Your task to perform on an android device: change notifications settings Image 0: 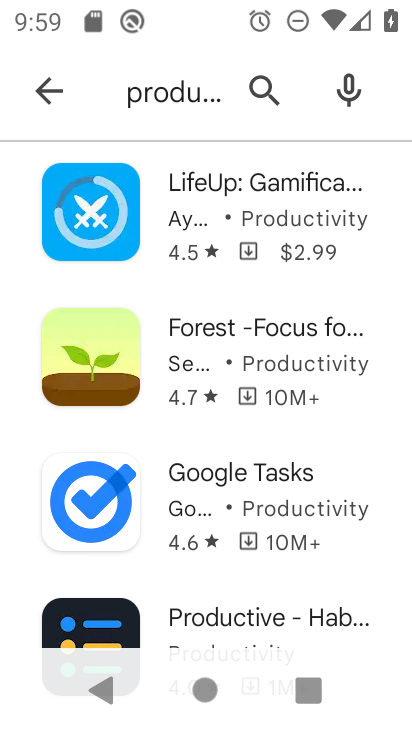
Step 0: press home button
Your task to perform on an android device: change notifications settings Image 1: 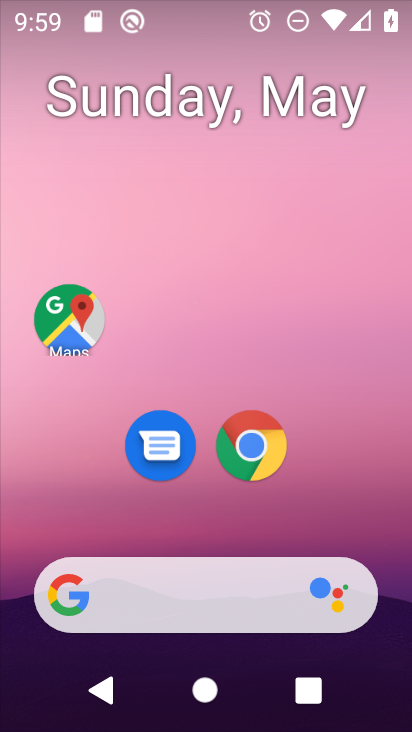
Step 1: drag from (268, 375) to (268, 200)
Your task to perform on an android device: change notifications settings Image 2: 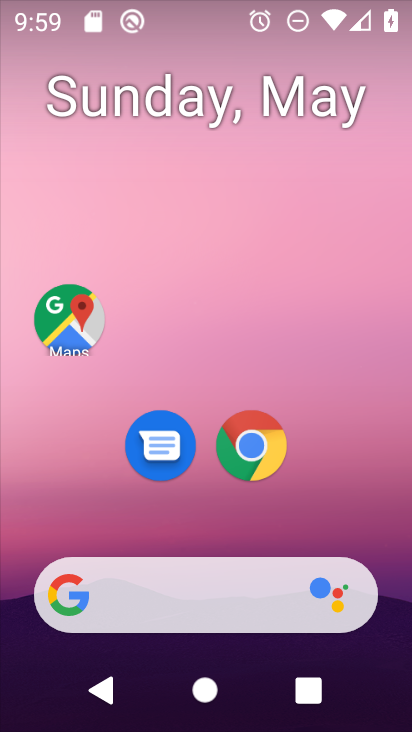
Step 2: drag from (226, 550) to (268, 147)
Your task to perform on an android device: change notifications settings Image 3: 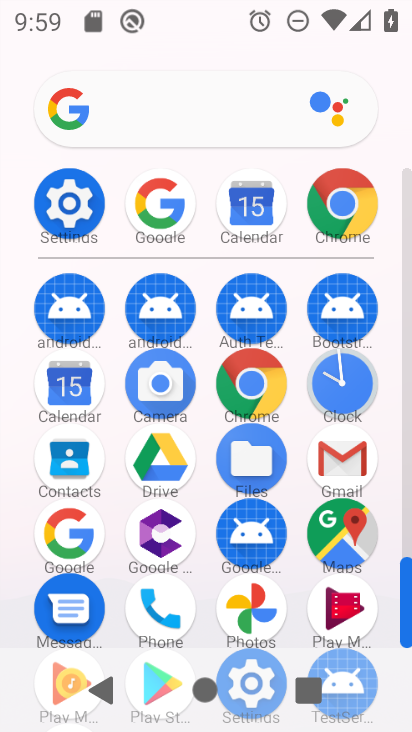
Step 3: click (79, 208)
Your task to perform on an android device: change notifications settings Image 4: 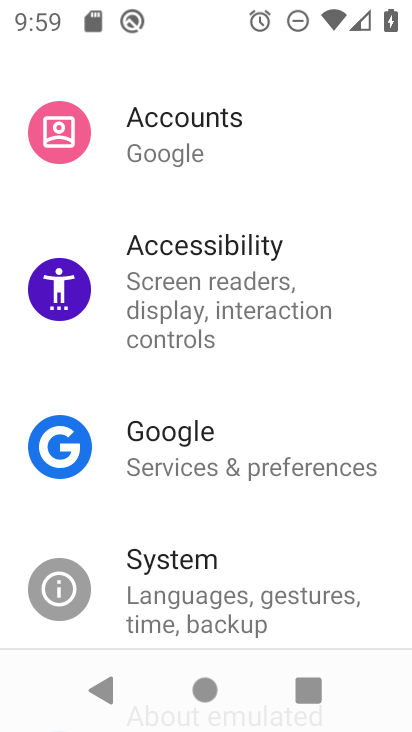
Step 4: drag from (229, 412) to (194, 682)
Your task to perform on an android device: change notifications settings Image 5: 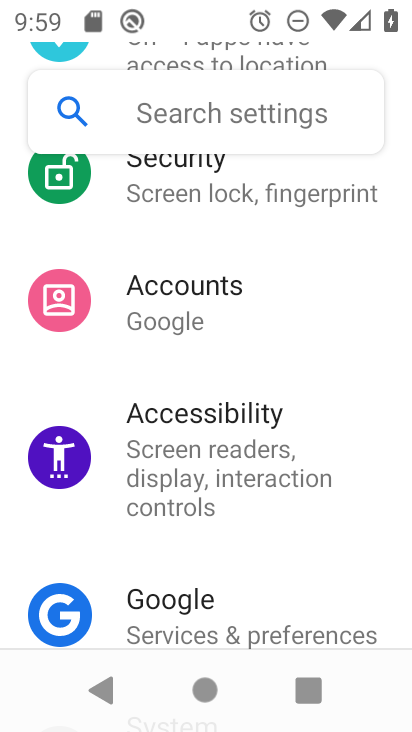
Step 5: drag from (220, 279) to (209, 703)
Your task to perform on an android device: change notifications settings Image 6: 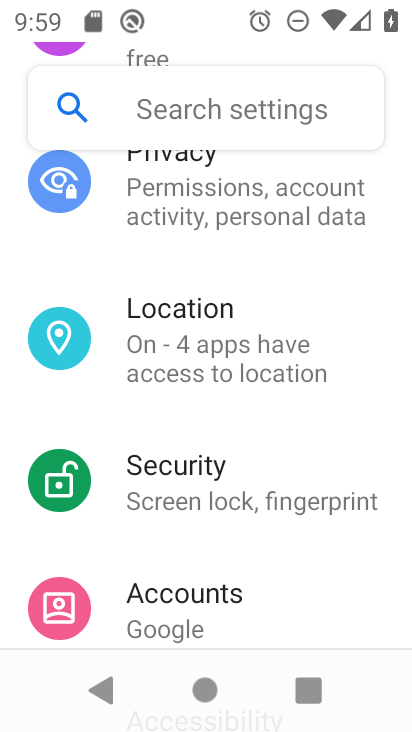
Step 6: drag from (293, 289) to (158, 705)
Your task to perform on an android device: change notifications settings Image 7: 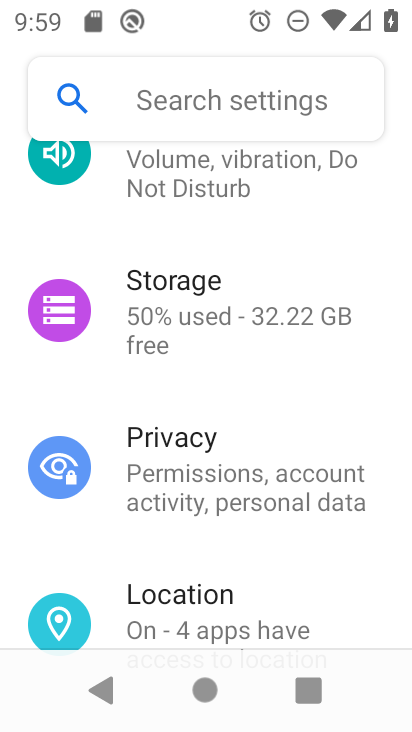
Step 7: drag from (204, 283) to (166, 605)
Your task to perform on an android device: change notifications settings Image 8: 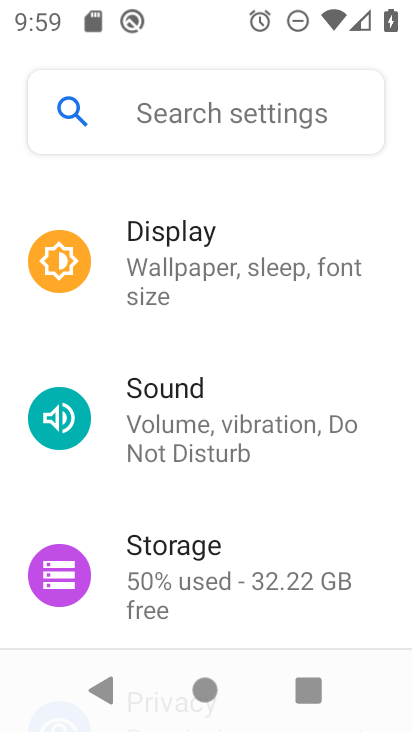
Step 8: drag from (172, 312) to (102, 667)
Your task to perform on an android device: change notifications settings Image 9: 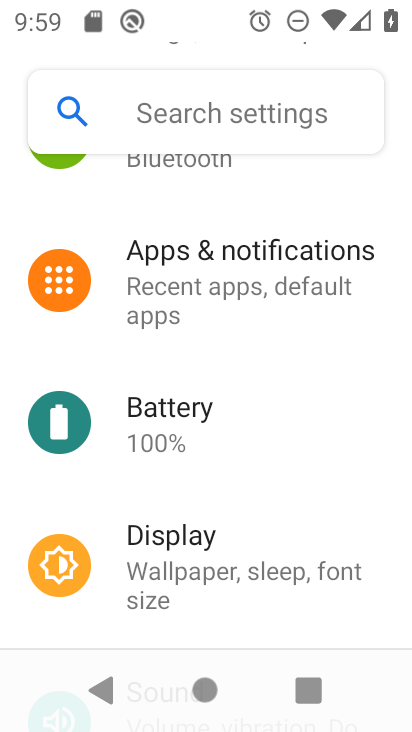
Step 9: click (207, 303)
Your task to perform on an android device: change notifications settings Image 10: 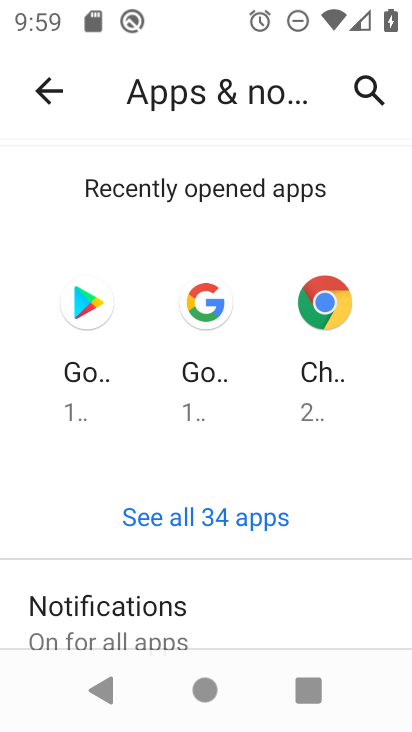
Step 10: click (161, 624)
Your task to perform on an android device: change notifications settings Image 11: 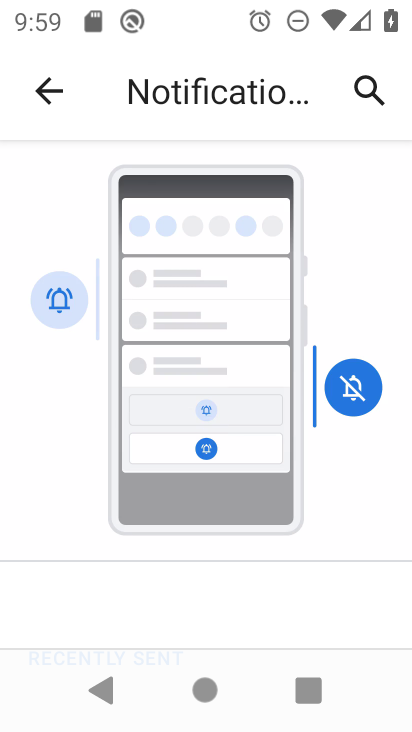
Step 11: drag from (249, 566) to (278, 250)
Your task to perform on an android device: change notifications settings Image 12: 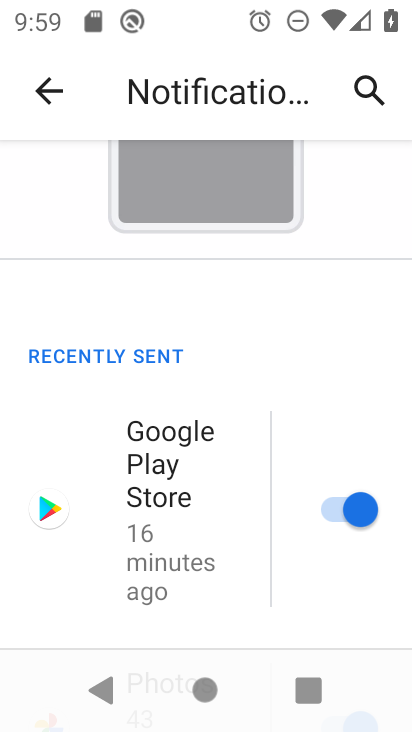
Step 12: click (335, 518)
Your task to perform on an android device: change notifications settings Image 13: 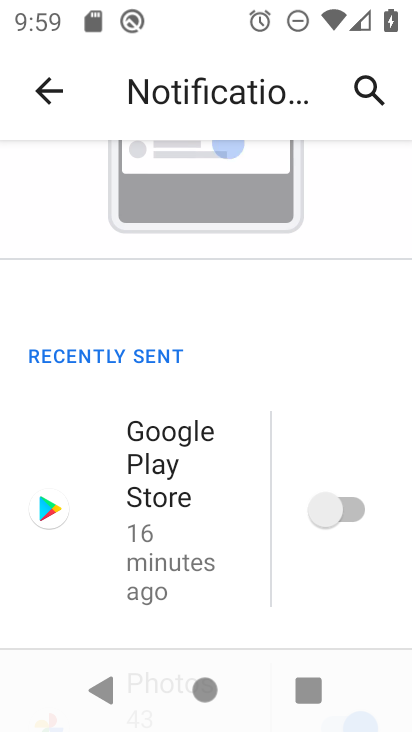
Step 13: task complete